Your task to perform on an android device: turn off airplane mode Image 0: 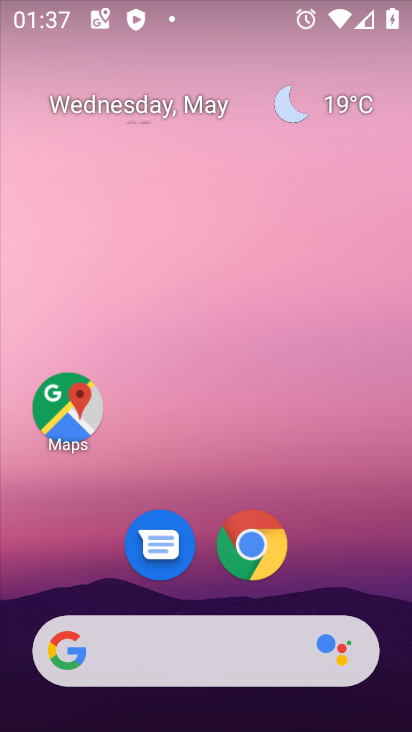
Step 0: drag from (332, 550) to (349, 53)
Your task to perform on an android device: turn off airplane mode Image 1: 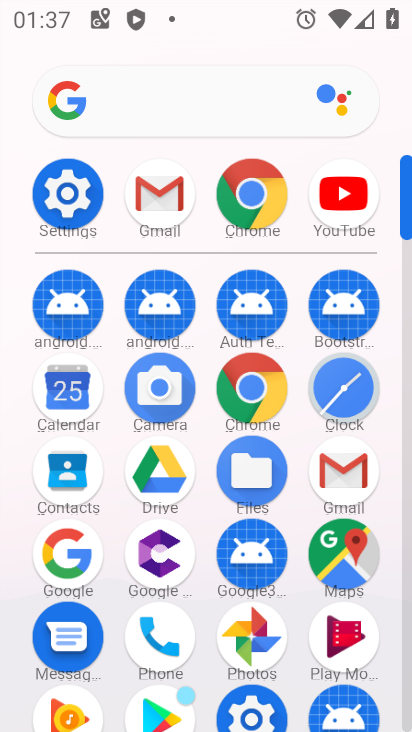
Step 1: click (61, 193)
Your task to perform on an android device: turn off airplane mode Image 2: 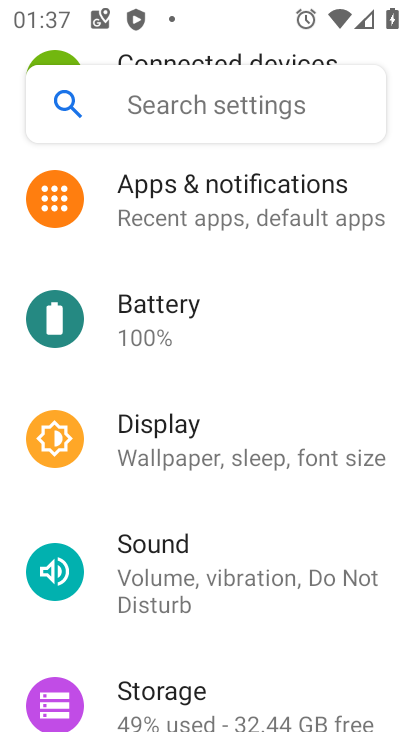
Step 2: drag from (253, 210) to (223, 678)
Your task to perform on an android device: turn off airplane mode Image 3: 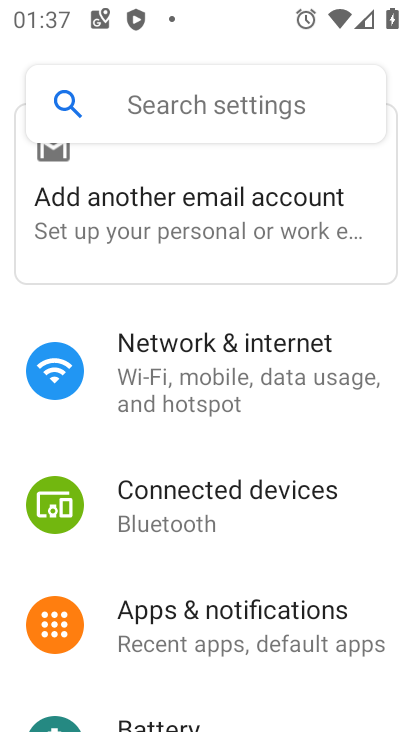
Step 3: click (221, 347)
Your task to perform on an android device: turn off airplane mode Image 4: 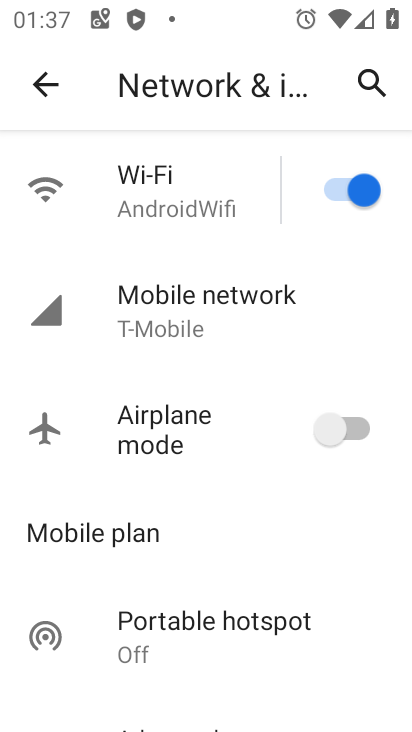
Step 4: task complete